Your task to perform on an android device: move a message to another label in the gmail app Image 0: 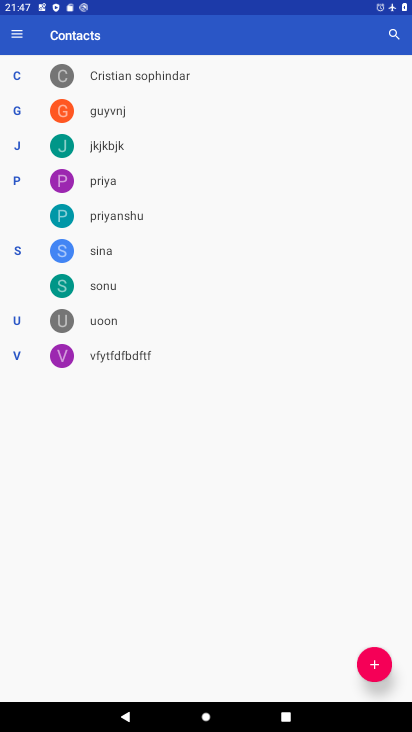
Step 0: drag from (263, 630) to (283, 381)
Your task to perform on an android device: move a message to another label in the gmail app Image 1: 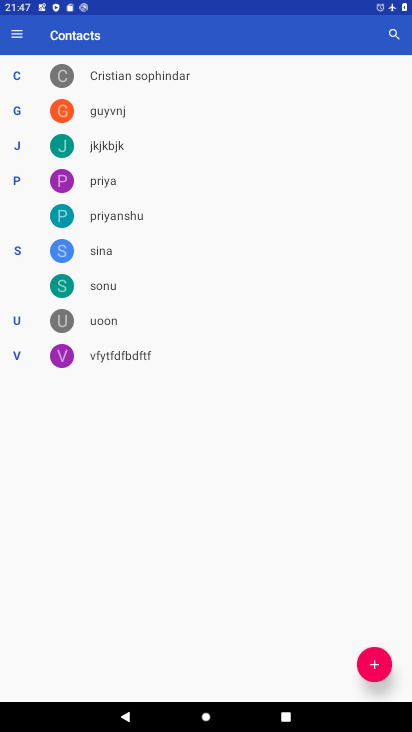
Step 1: press home button
Your task to perform on an android device: move a message to another label in the gmail app Image 2: 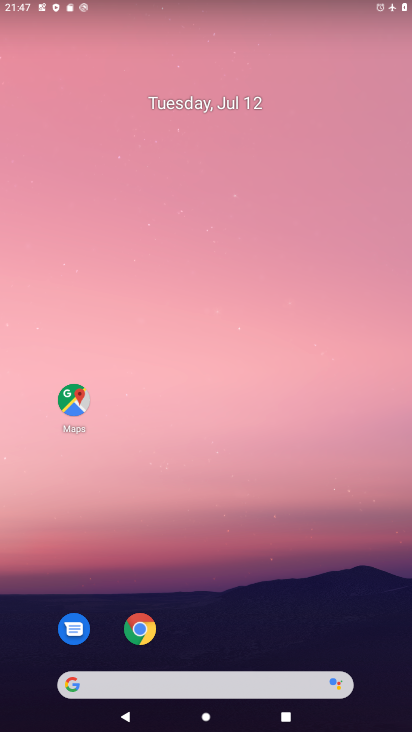
Step 2: drag from (265, 644) to (278, 167)
Your task to perform on an android device: move a message to another label in the gmail app Image 3: 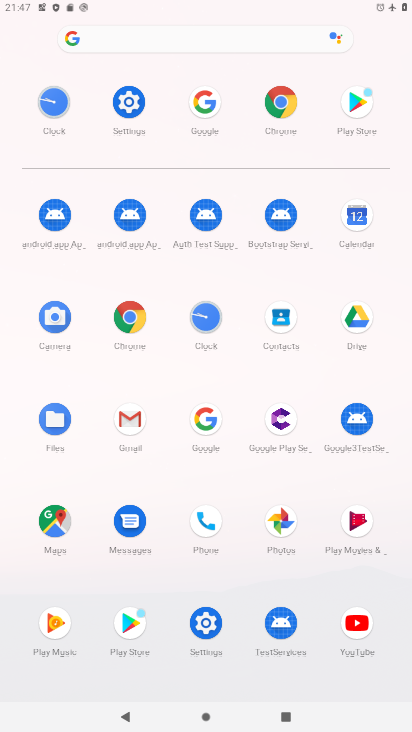
Step 3: click (134, 417)
Your task to perform on an android device: move a message to another label in the gmail app Image 4: 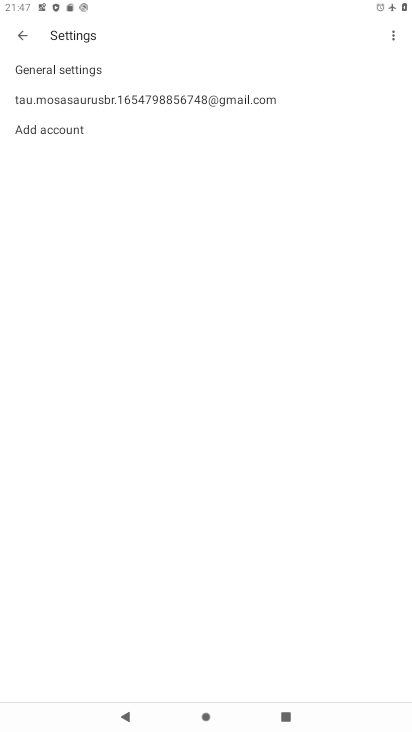
Step 4: click (21, 30)
Your task to perform on an android device: move a message to another label in the gmail app Image 5: 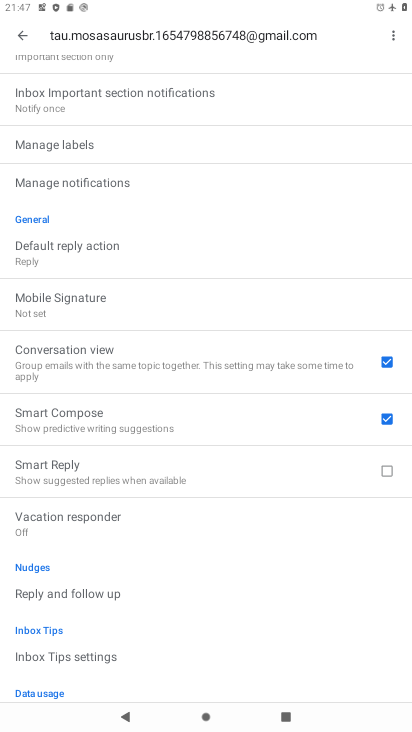
Step 5: click (16, 38)
Your task to perform on an android device: move a message to another label in the gmail app Image 6: 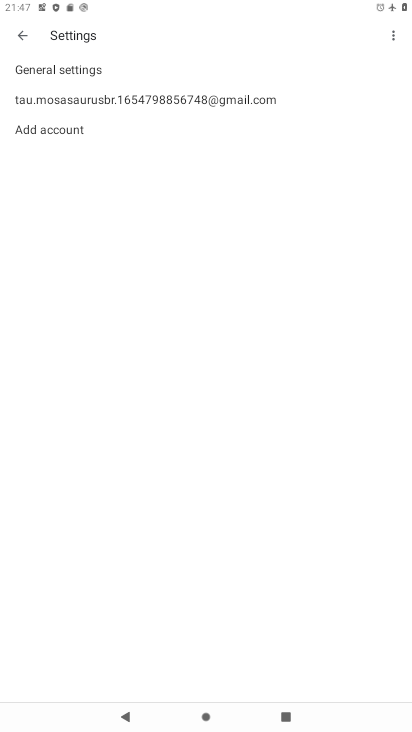
Step 6: click (18, 36)
Your task to perform on an android device: move a message to another label in the gmail app Image 7: 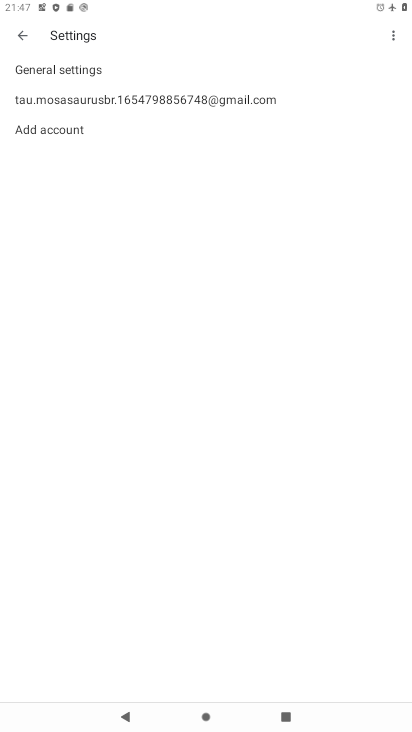
Step 7: click (18, 36)
Your task to perform on an android device: move a message to another label in the gmail app Image 8: 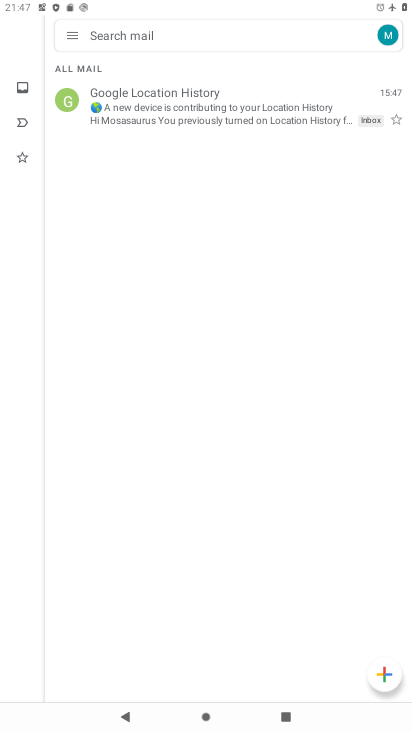
Step 8: click (118, 99)
Your task to perform on an android device: move a message to another label in the gmail app Image 9: 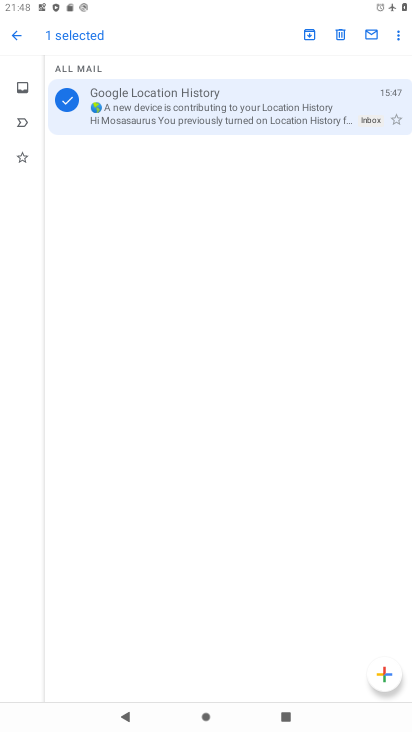
Step 9: click (394, 33)
Your task to perform on an android device: move a message to another label in the gmail app Image 10: 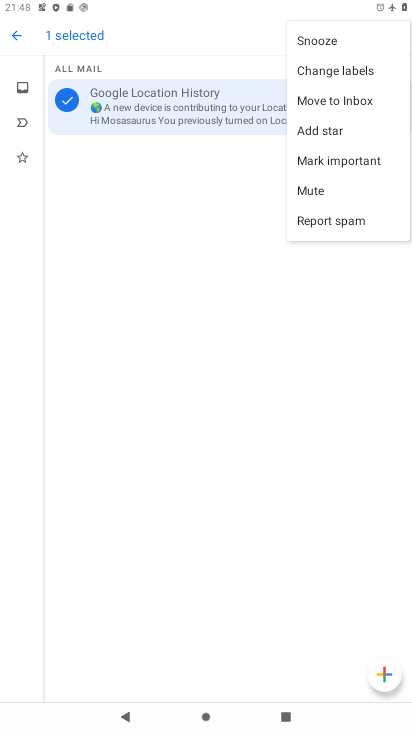
Step 10: click (331, 88)
Your task to perform on an android device: move a message to another label in the gmail app Image 11: 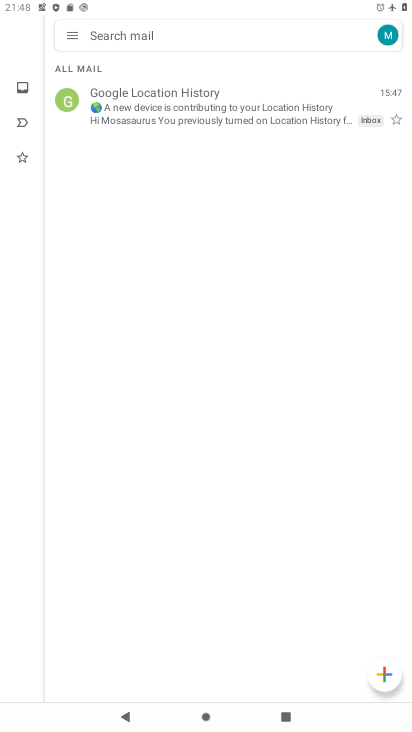
Step 11: task complete